Your task to perform on an android device: Go to eBay Image 0: 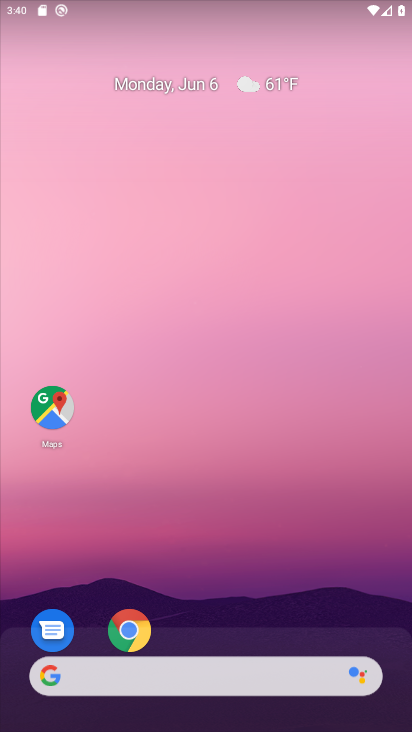
Step 0: click (159, 694)
Your task to perform on an android device: Go to eBay Image 1: 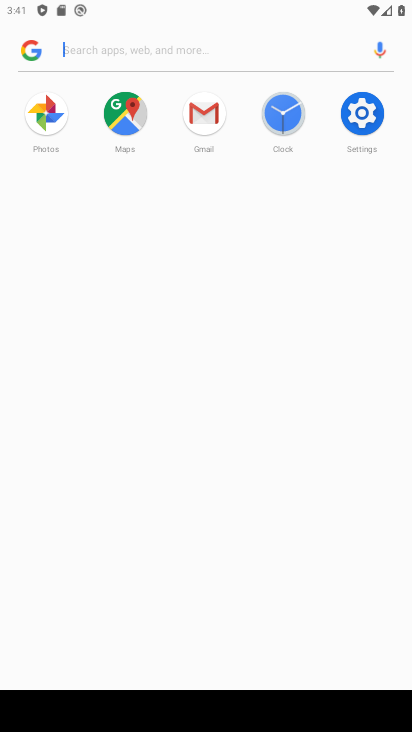
Step 1: type "eBay"
Your task to perform on an android device: Go to eBay Image 2: 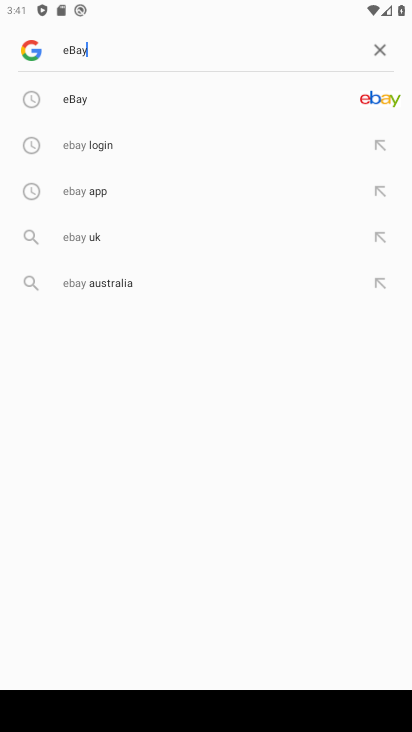
Step 2: click (117, 79)
Your task to perform on an android device: Go to eBay Image 3: 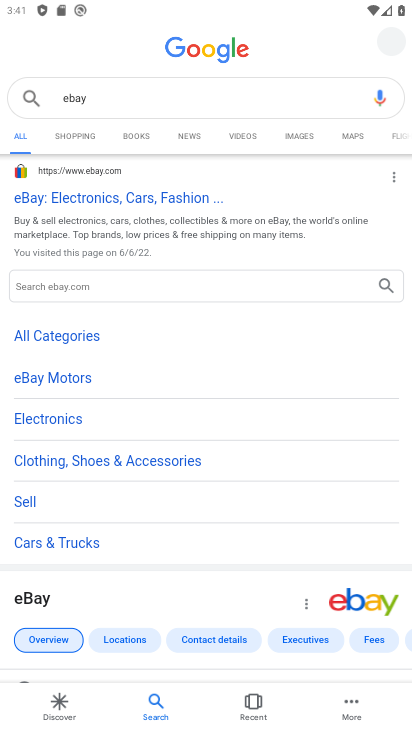
Step 3: click (113, 195)
Your task to perform on an android device: Go to eBay Image 4: 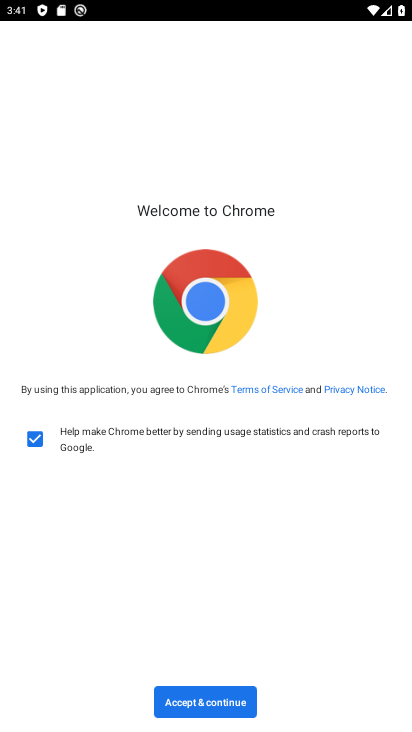
Step 4: click (204, 699)
Your task to perform on an android device: Go to eBay Image 5: 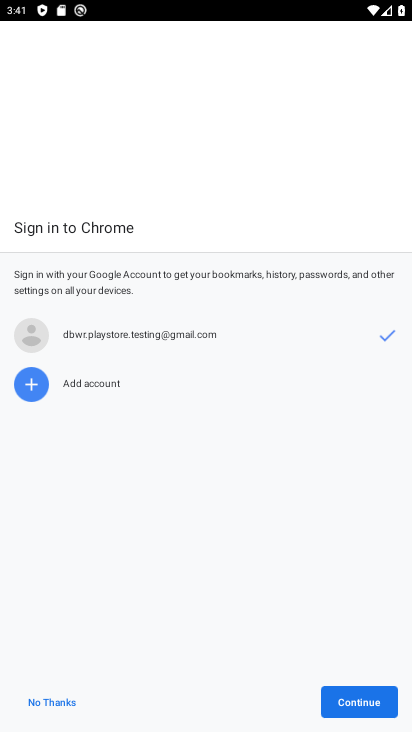
Step 5: click (358, 699)
Your task to perform on an android device: Go to eBay Image 6: 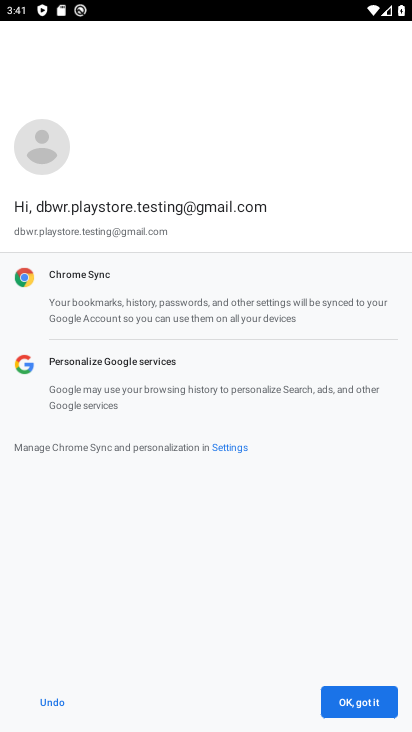
Step 6: click (359, 698)
Your task to perform on an android device: Go to eBay Image 7: 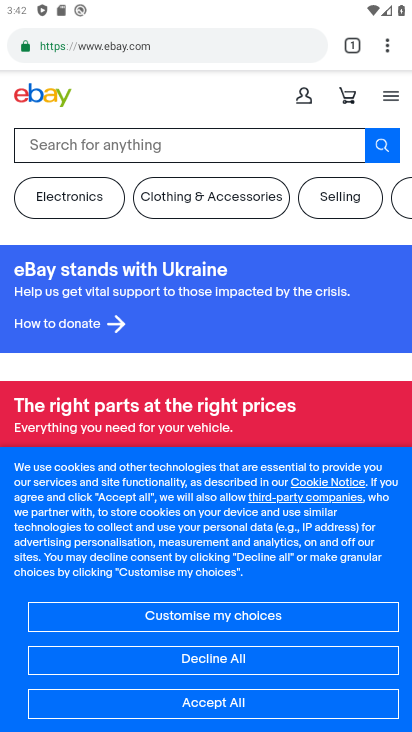
Step 7: task complete